Your task to perform on an android device: change the clock display to digital Image 0: 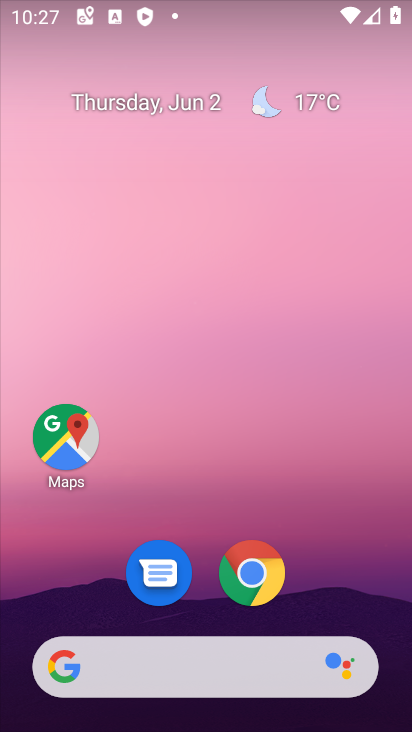
Step 0: drag from (323, 509) to (376, 23)
Your task to perform on an android device: change the clock display to digital Image 1: 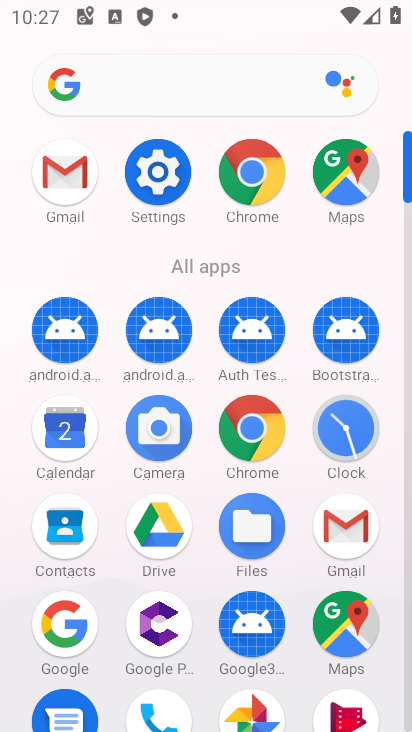
Step 1: click (346, 424)
Your task to perform on an android device: change the clock display to digital Image 2: 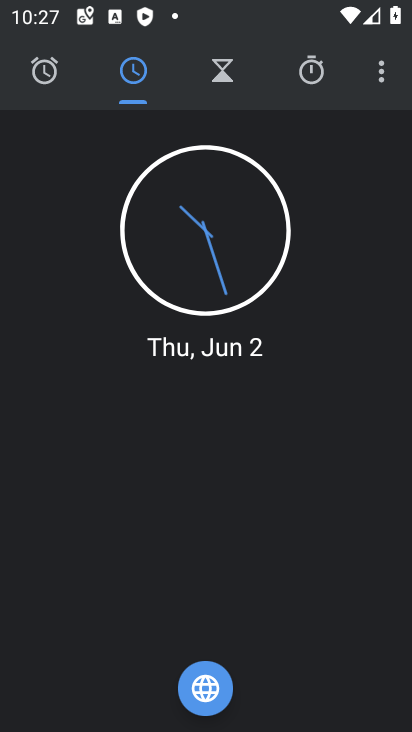
Step 2: click (379, 95)
Your task to perform on an android device: change the clock display to digital Image 3: 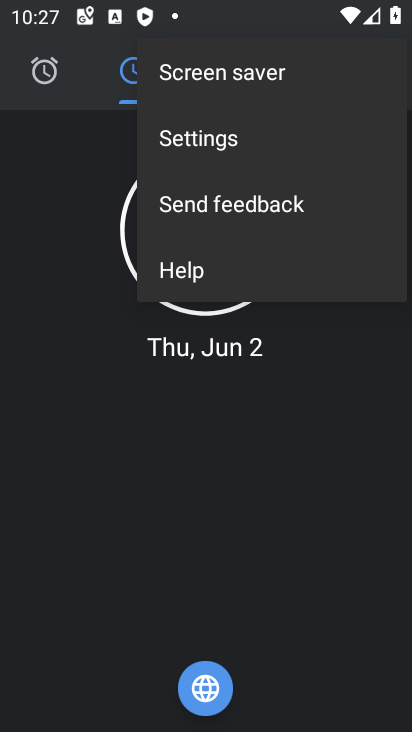
Step 3: click (229, 131)
Your task to perform on an android device: change the clock display to digital Image 4: 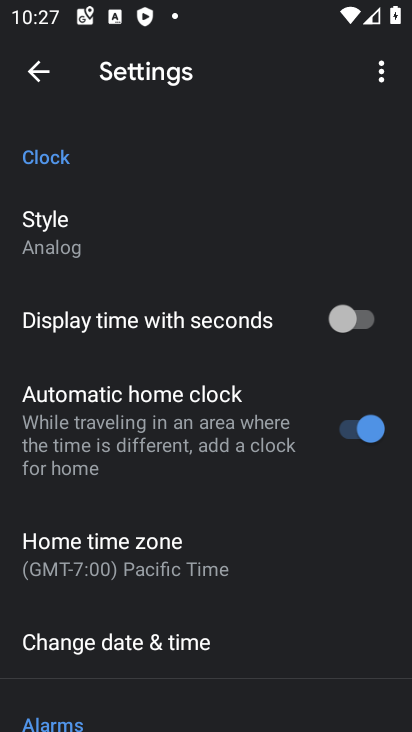
Step 4: click (71, 219)
Your task to perform on an android device: change the clock display to digital Image 5: 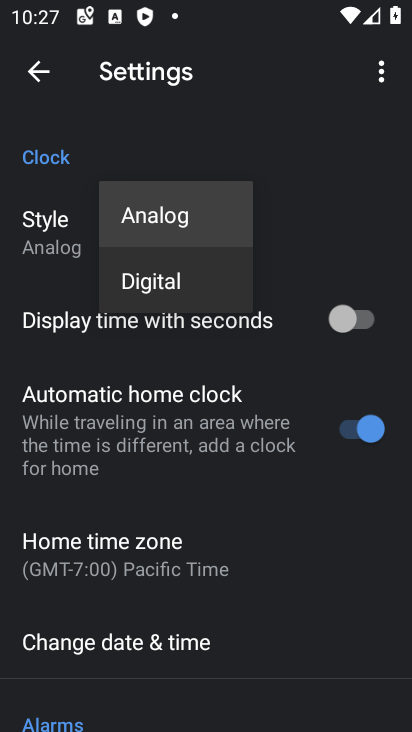
Step 5: click (170, 282)
Your task to perform on an android device: change the clock display to digital Image 6: 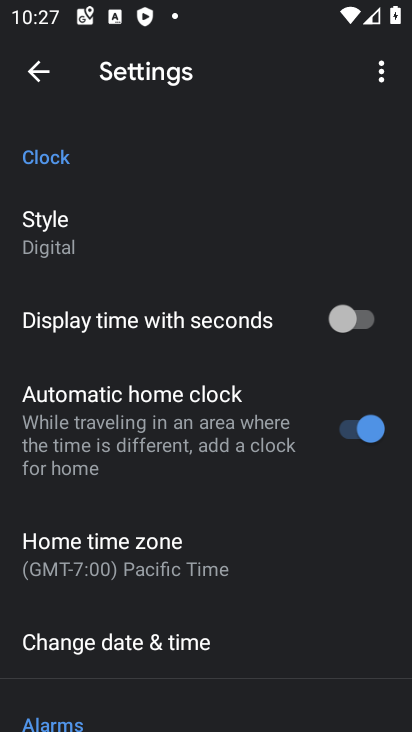
Step 6: task complete